Your task to perform on an android device: check out phone information Image 0: 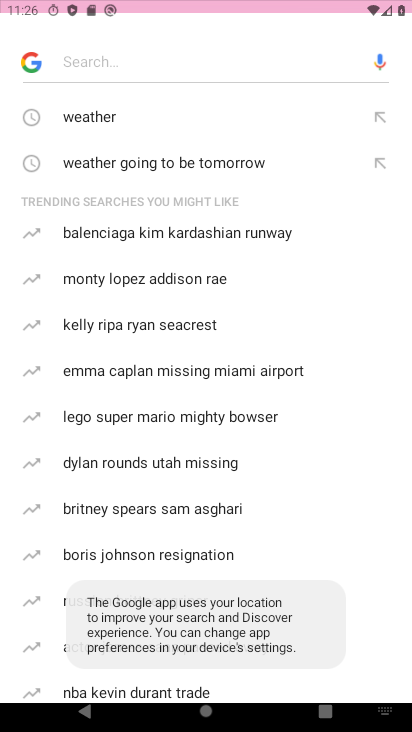
Step 0: click (260, 245)
Your task to perform on an android device: check out phone information Image 1: 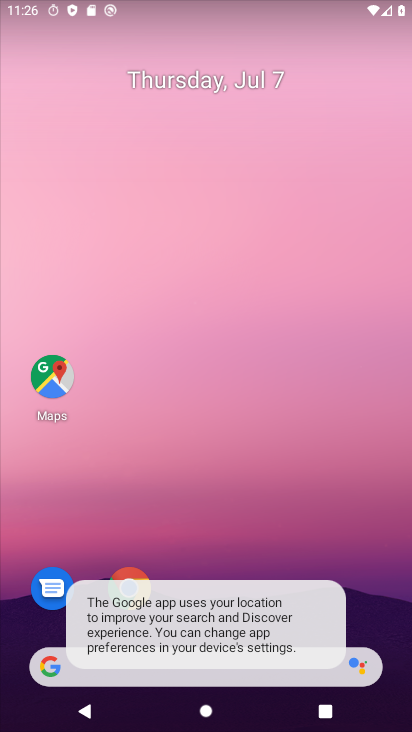
Step 1: drag from (191, 598) to (254, 184)
Your task to perform on an android device: check out phone information Image 2: 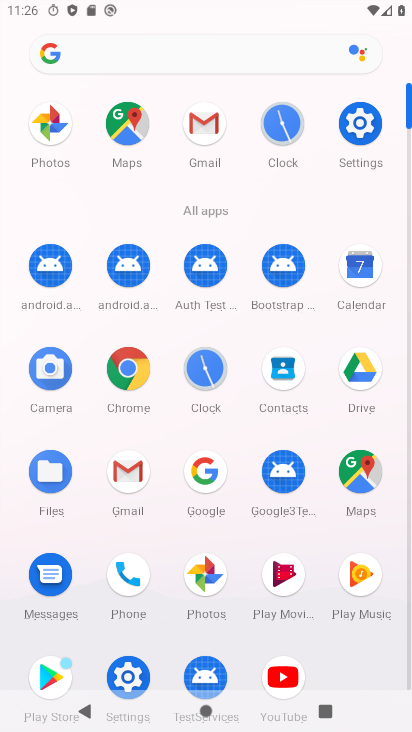
Step 2: click (345, 115)
Your task to perform on an android device: check out phone information Image 3: 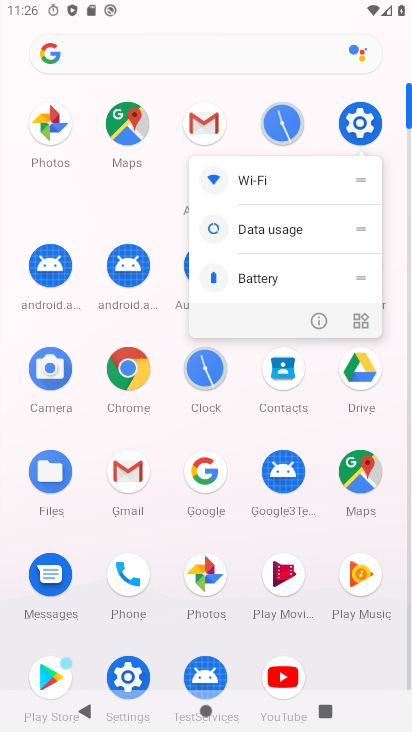
Step 3: click (317, 321)
Your task to perform on an android device: check out phone information Image 4: 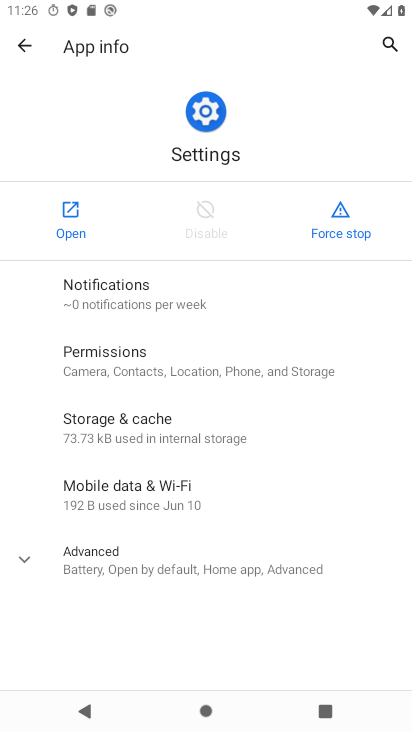
Step 4: click (69, 210)
Your task to perform on an android device: check out phone information Image 5: 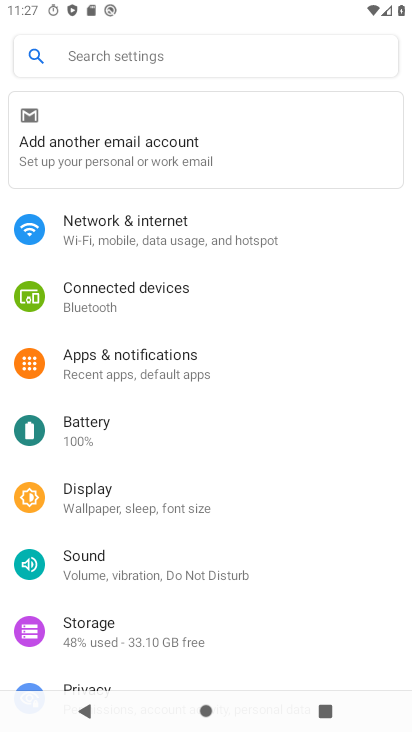
Step 5: drag from (180, 619) to (213, 268)
Your task to perform on an android device: check out phone information Image 6: 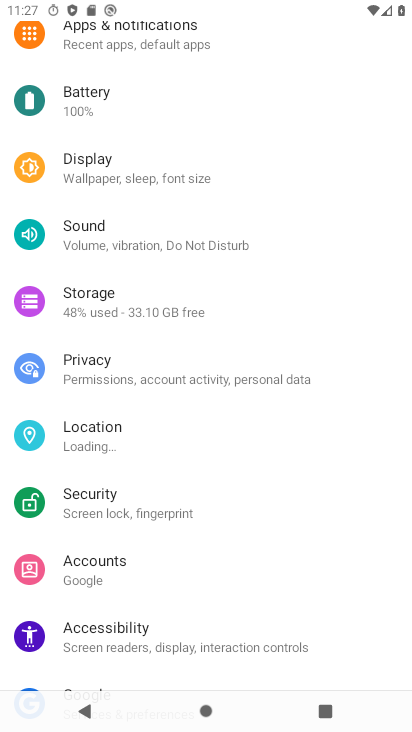
Step 6: drag from (169, 634) to (218, 75)
Your task to perform on an android device: check out phone information Image 7: 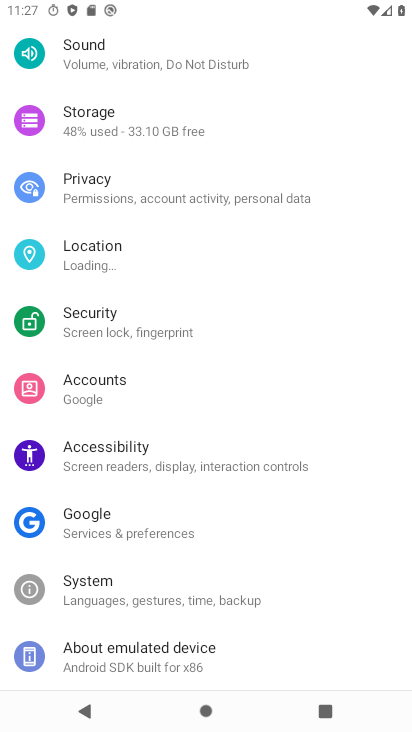
Step 7: drag from (166, 568) to (238, 213)
Your task to perform on an android device: check out phone information Image 8: 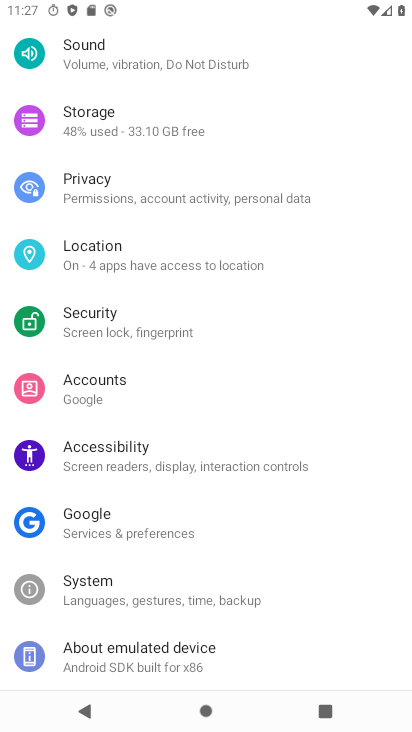
Step 8: click (178, 665)
Your task to perform on an android device: check out phone information Image 9: 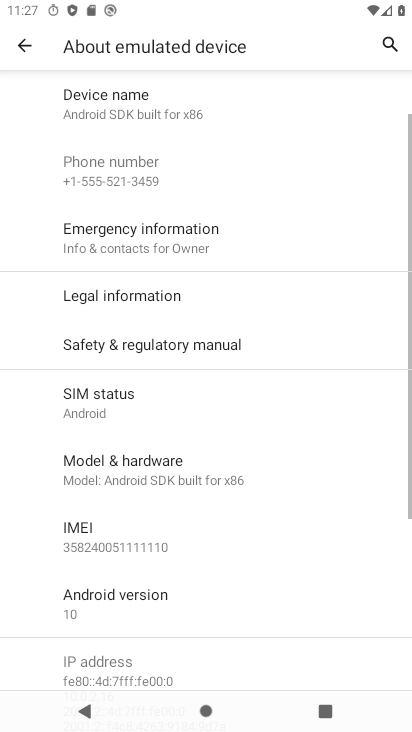
Step 9: task complete